Your task to perform on an android device: check storage Image 0: 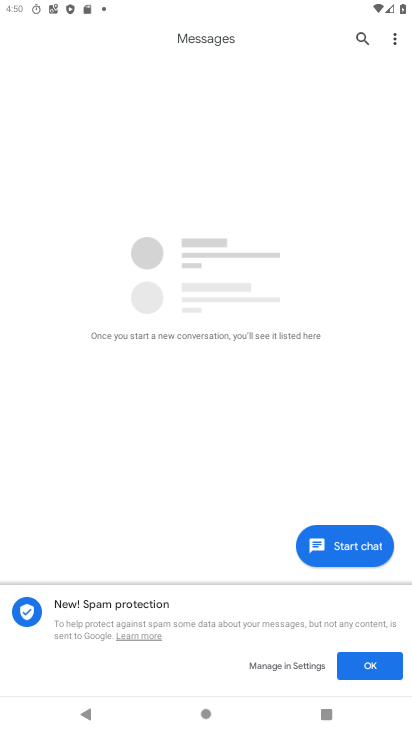
Step 0: press back button
Your task to perform on an android device: check storage Image 1: 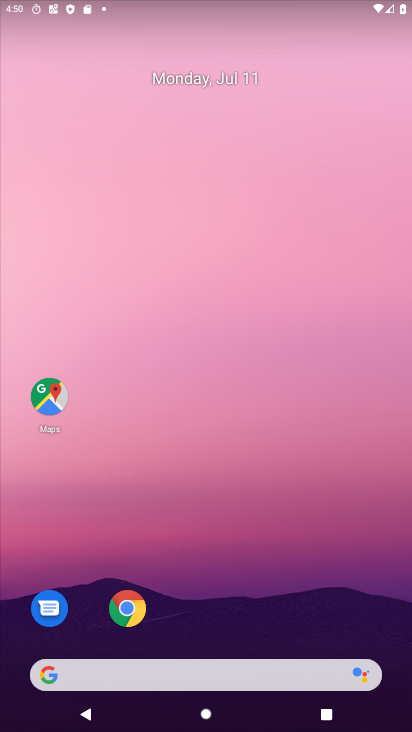
Step 1: drag from (163, 256) to (150, 156)
Your task to perform on an android device: check storage Image 2: 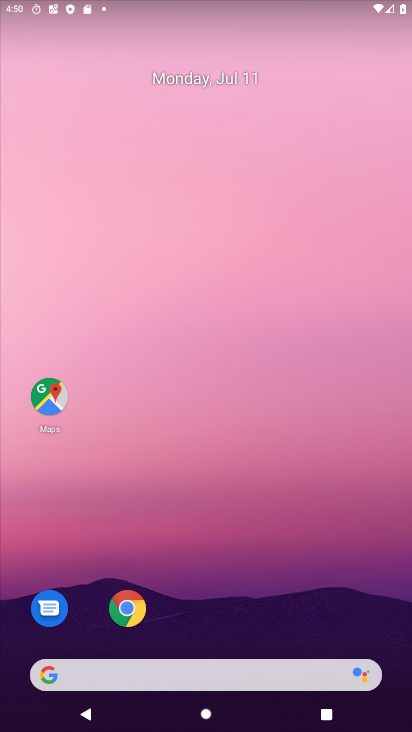
Step 2: drag from (223, 669) to (153, 156)
Your task to perform on an android device: check storage Image 3: 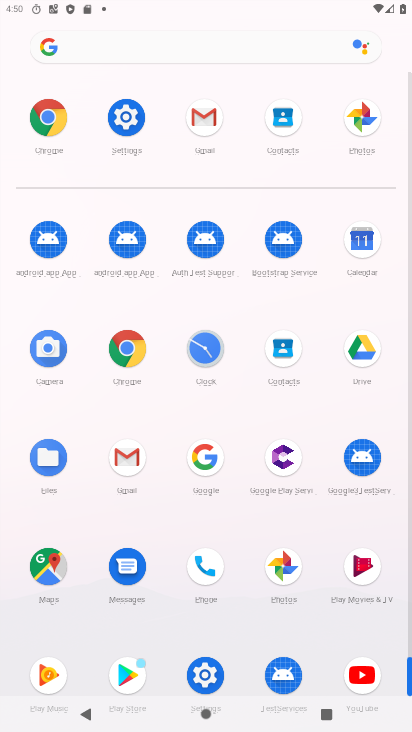
Step 3: click (123, 120)
Your task to perform on an android device: check storage Image 4: 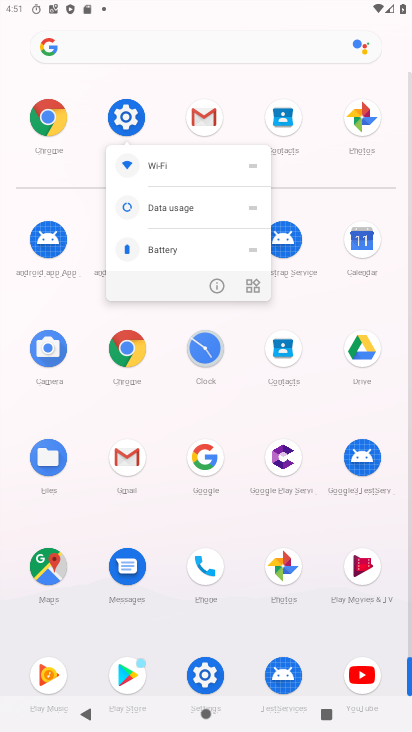
Step 4: click (134, 118)
Your task to perform on an android device: check storage Image 5: 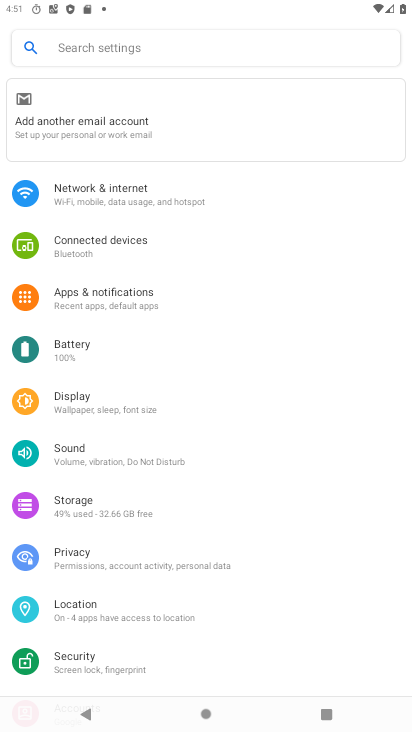
Step 5: click (82, 511)
Your task to perform on an android device: check storage Image 6: 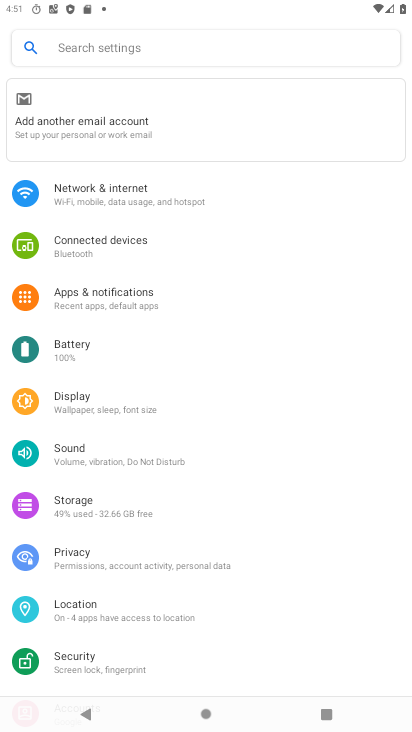
Step 6: click (82, 509)
Your task to perform on an android device: check storage Image 7: 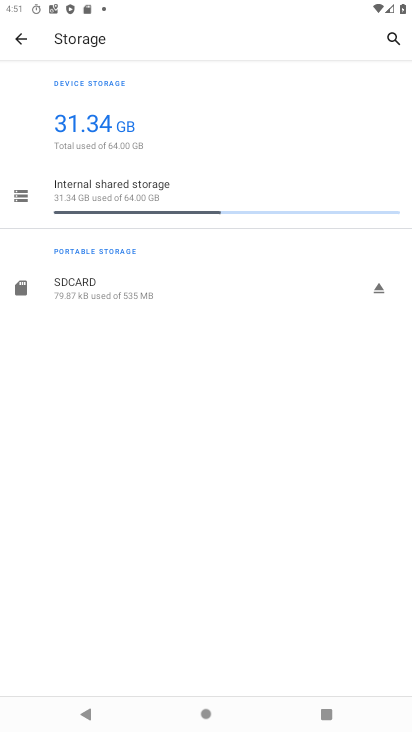
Step 7: task complete